Your task to perform on an android device: add a contact in the contacts app Image 0: 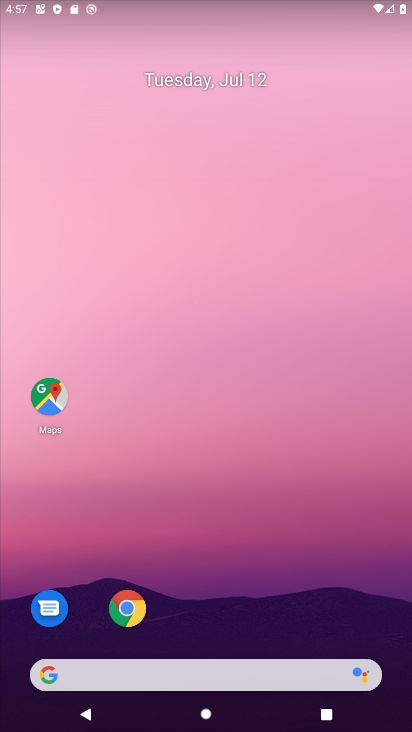
Step 0: drag from (205, 645) to (187, 139)
Your task to perform on an android device: add a contact in the contacts app Image 1: 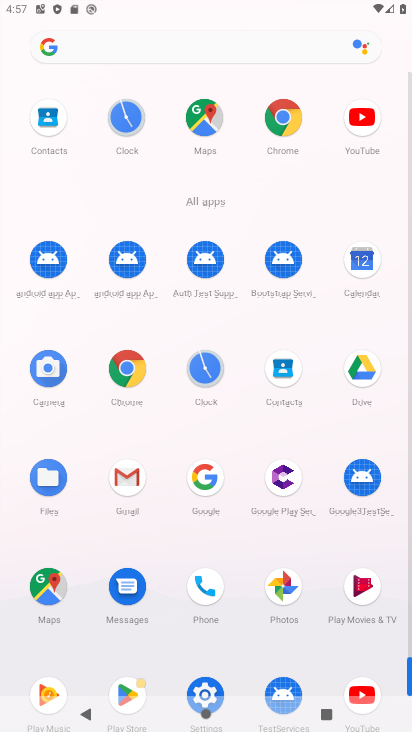
Step 1: click (284, 362)
Your task to perform on an android device: add a contact in the contacts app Image 2: 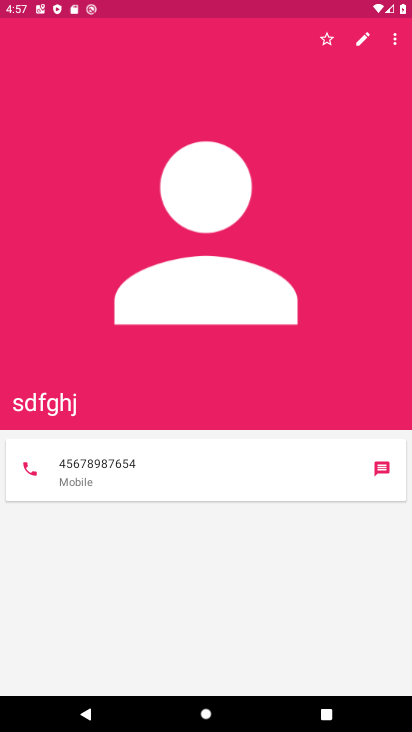
Step 2: press back button
Your task to perform on an android device: add a contact in the contacts app Image 3: 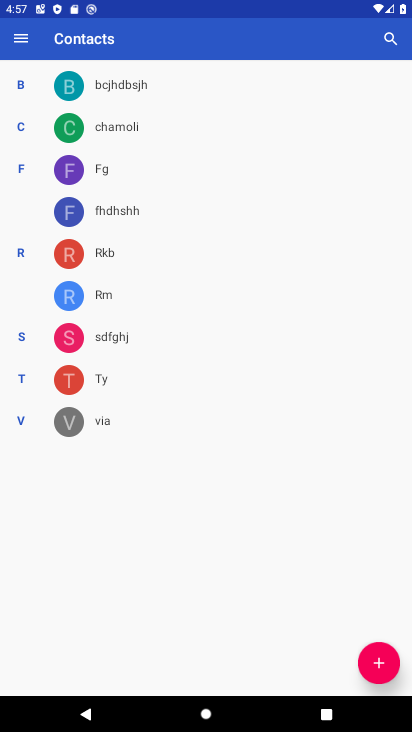
Step 3: click (374, 669)
Your task to perform on an android device: add a contact in the contacts app Image 4: 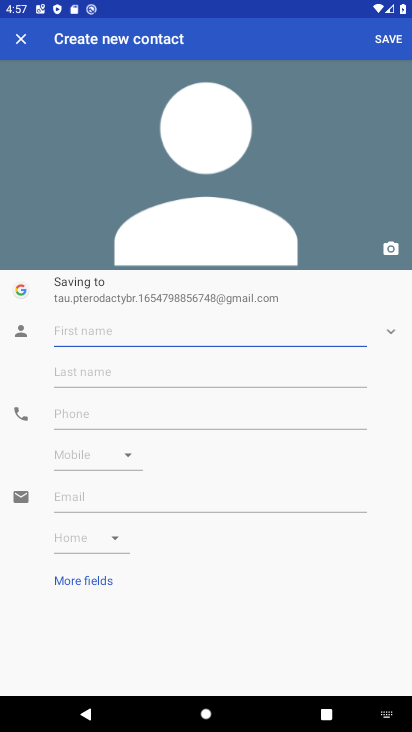
Step 4: type "oijuhgv"
Your task to perform on an android device: add a contact in the contacts app Image 5: 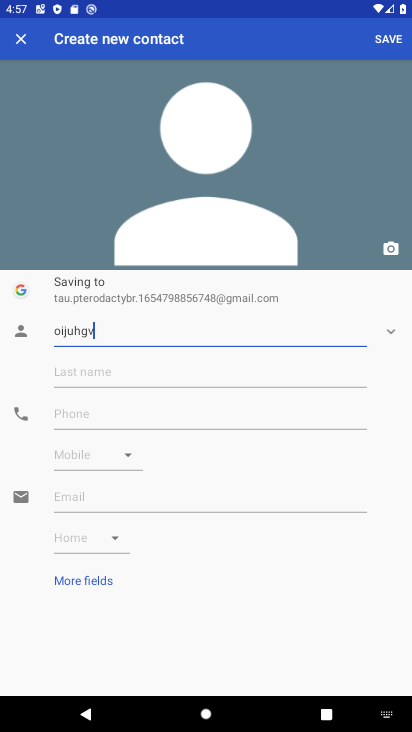
Step 5: click (124, 408)
Your task to perform on an android device: add a contact in the contacts app Image 6: 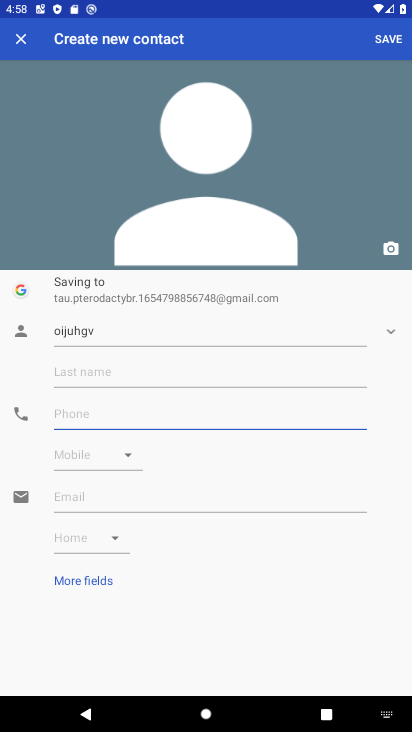
Step 6: type "8765434567"
Your task to perform on an android device: add a contact in the contacts app Image 7: 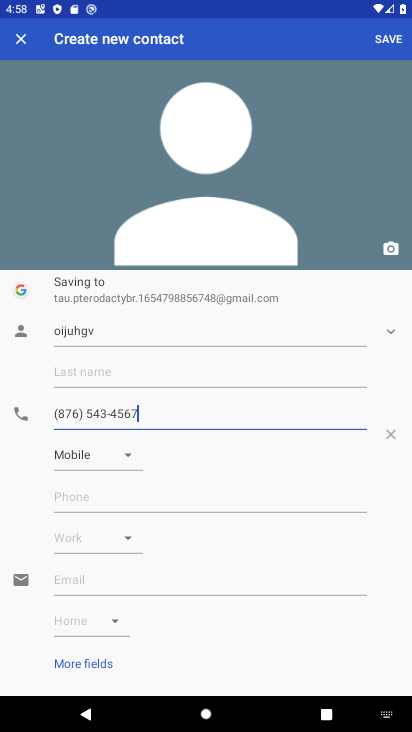
Step 7: type ""
Your task to perform on an android device: add a contact in the contacts app Image 8: 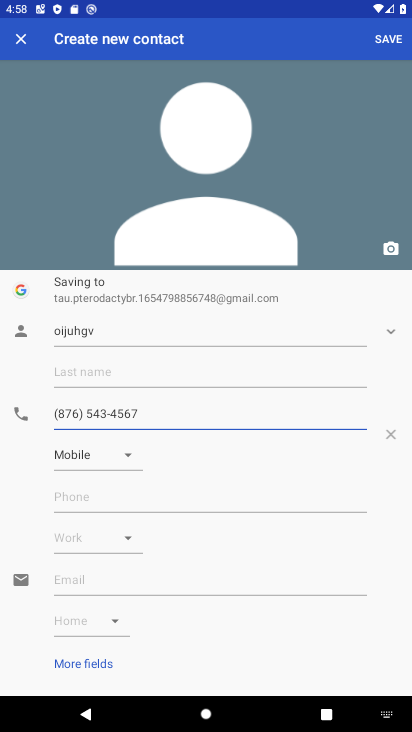
Step 8: click (380, 39)
Your task to perform on an android device: add a contact in the contacts app Image 9: 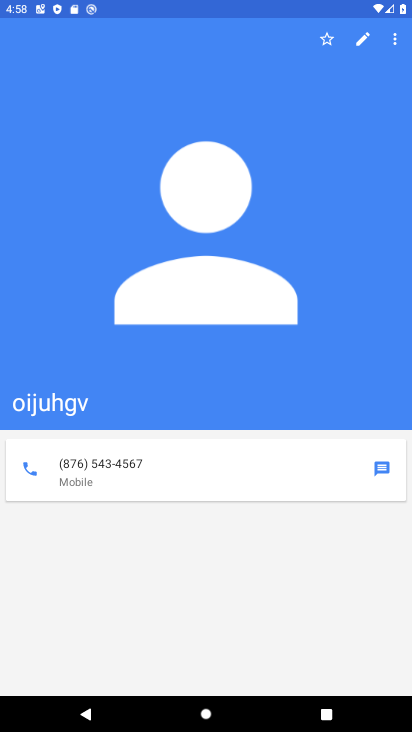
Step 9: task complete